Your task to perform on an android device: What's the weather going to be tomorrow? Image 0: 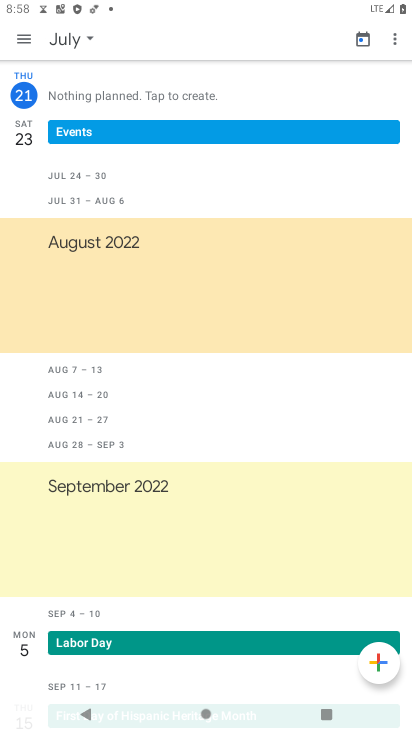
Step 0: press home button
Your task to perform on an android device: What's the weather going to be tomorrow? Image 1: 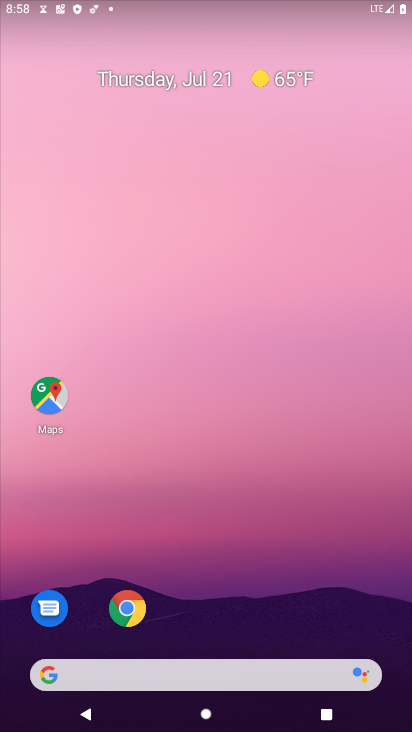
Step 1: drag from (223, 674) to (218, 63)
Your task to perform on an android device: What's the weather going to be tomorrow? Image 2: 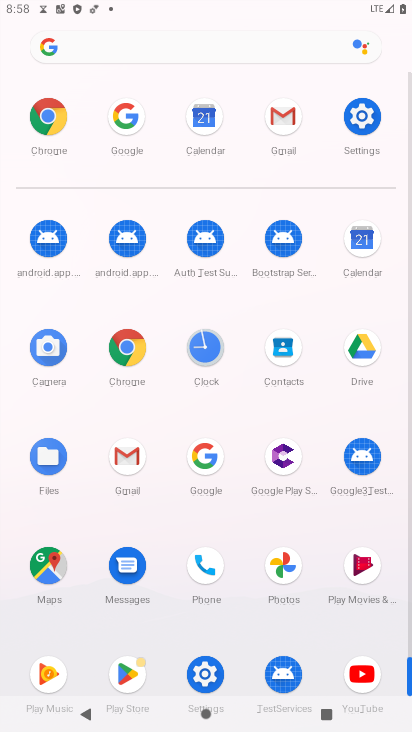
Step 2: click (122, 114)
Your task to perform on an android device: What's the weather going to be tomorrow? Image 3: 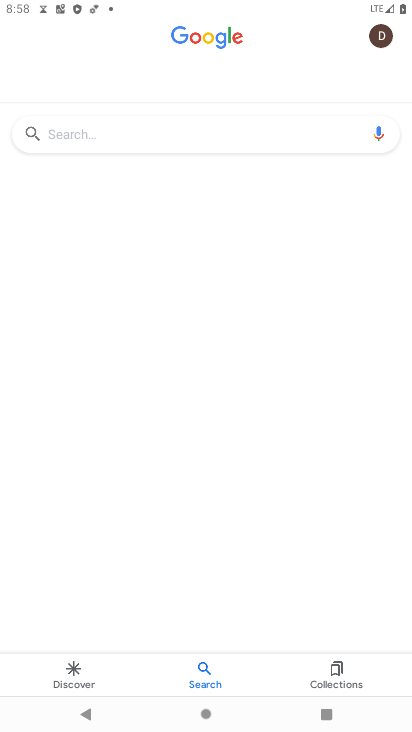
Step 3: click (112, 128)
Your task to perform on an android device: What's the weather going to be tomorrow? Image 4: 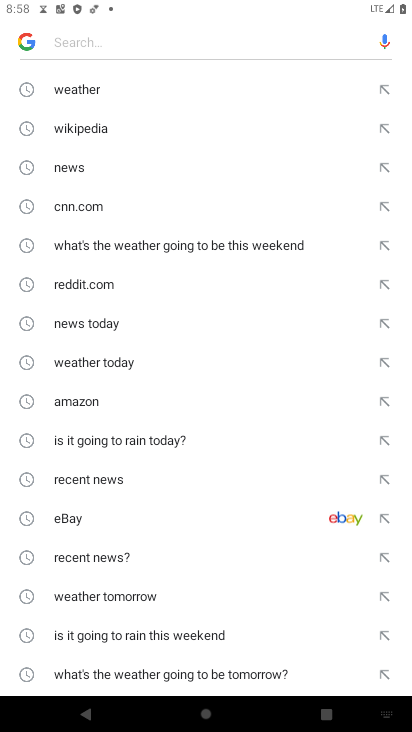
Step 4: click (215, 676)
Your task to perform on an android device: What's the weather going to be tomorrow? Image 5: 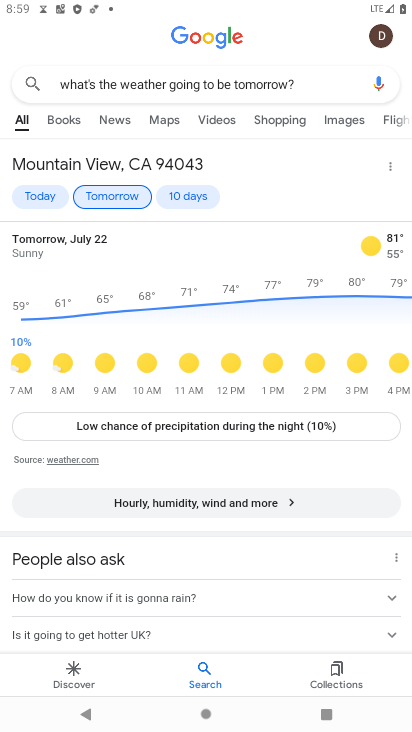
Step 5: task complete